Your task to perform on an android device: remove spam from my inbox in the gmail app Image 0: 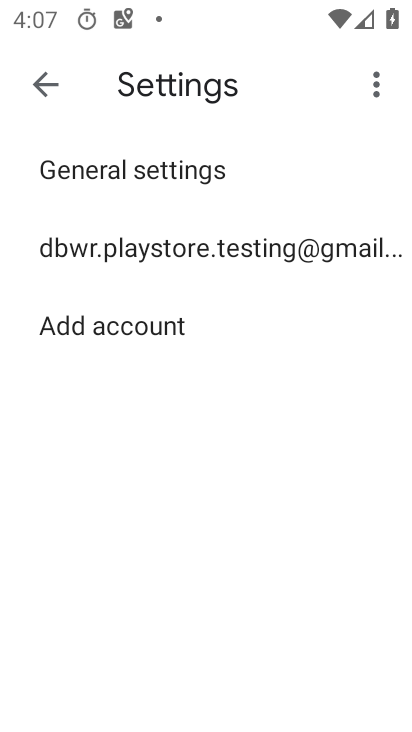
Step 0: press home button
Your task to perform on an android device: remove spam from my inbox in the gmail app Image 1: 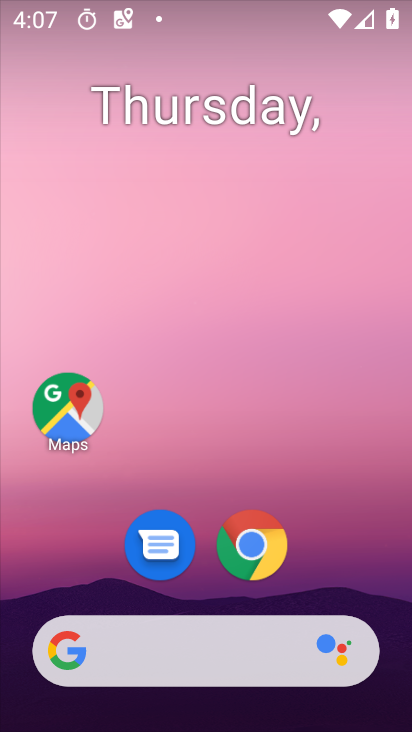
Step 1: drag from (229, 698) to (222, 134)
Your task to perform on an android device: remove spam from my inbox in the gmail app Image 2: 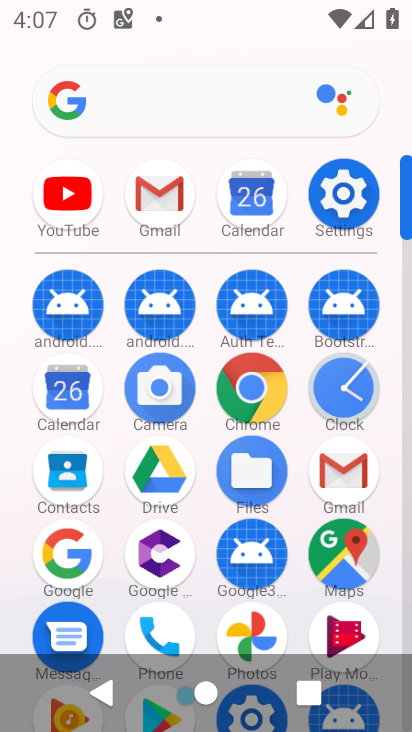
Step 2: click (339, 475)
Your task to perform on an android device: remove spam from my inbox in the gmail app Image 3: 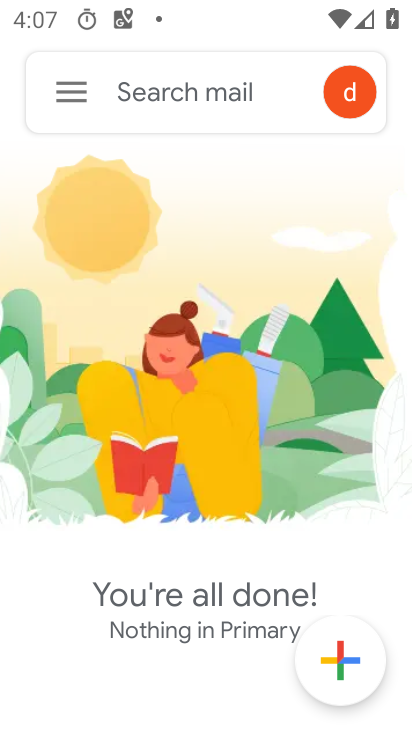
Step 3: click (70, 86)
Your task to perform on an android device: remove spam from my inbox in the gmail app Image 4: 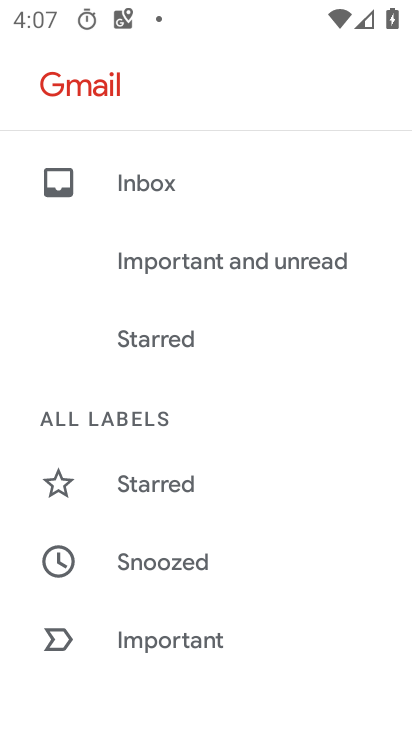
Step 4: click (152, 174)
Your task to perform on an android device: remove spam from my inbox in the gmail app Image 5: 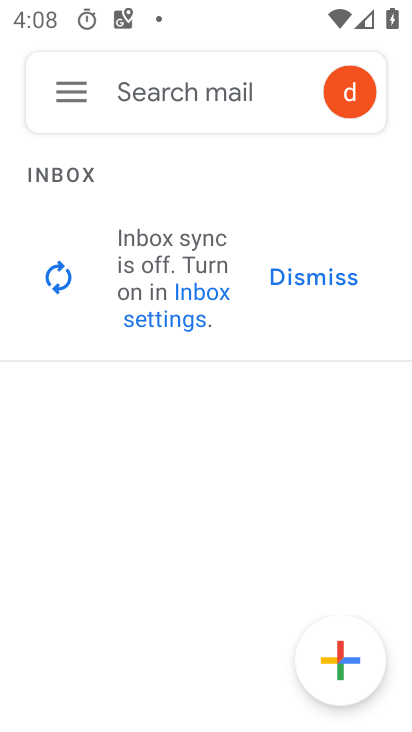
Step 5: task complete